Your task to perform on an android device: turn vacation reply on in the gmail app Image 0: 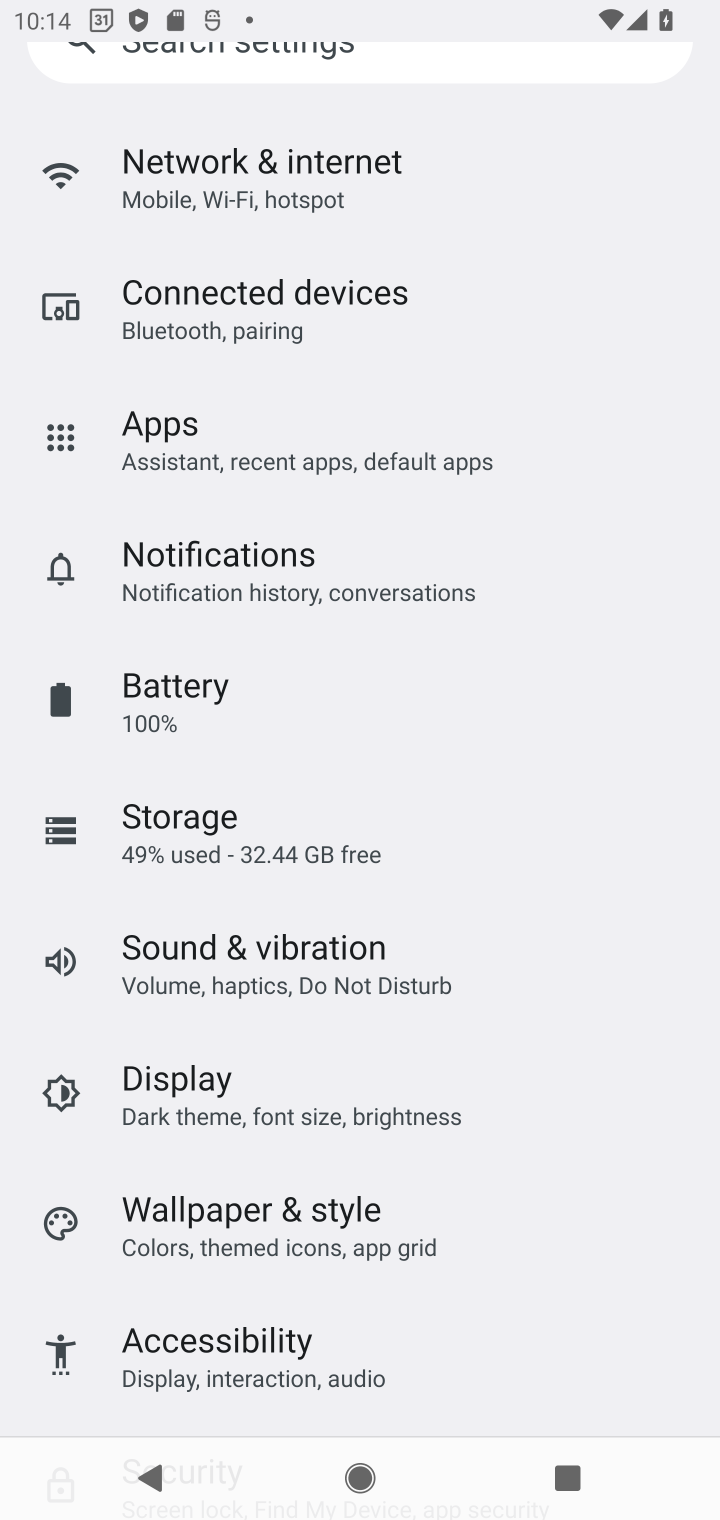
Step 0: press home button
Your task to perform on an android device: turn vacation reply on in the gmail app Image 1: 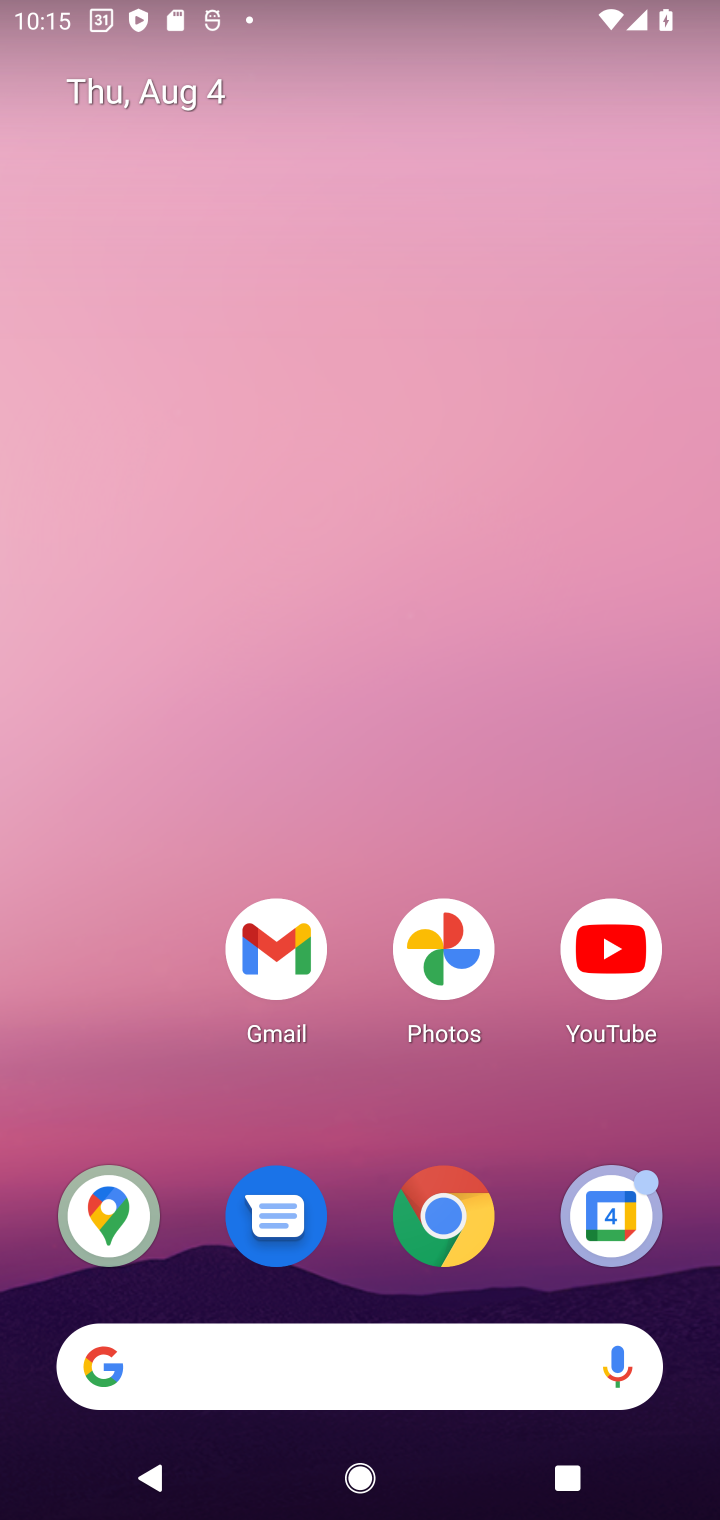
Step 1: drag from (250, 1382) to (299, 35)
Your task to perform on an android device: turn vacation reply on in the gmail app Image 2: 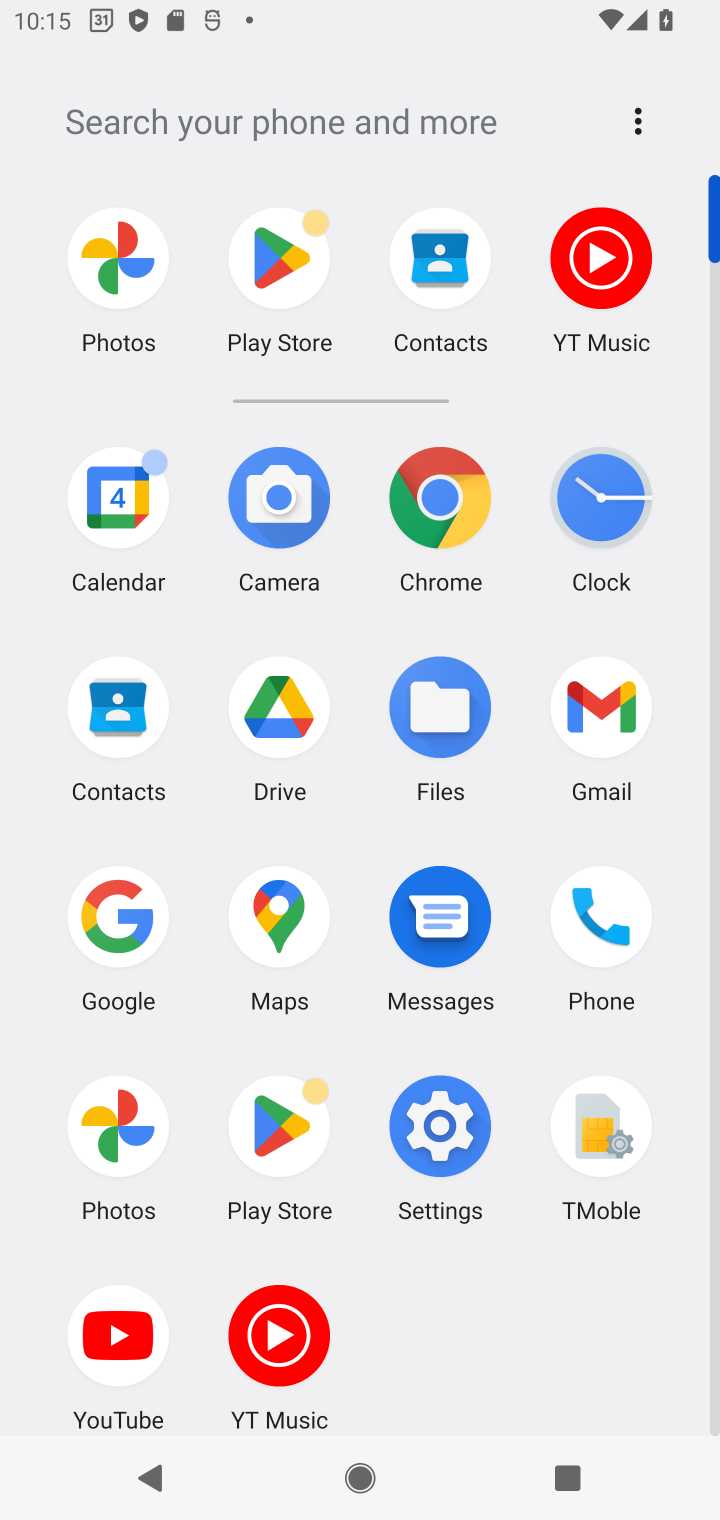
Step 2: click (591, 708)
Your task to perform on an android device: turn vacation reply on in the gmail app Image 3: 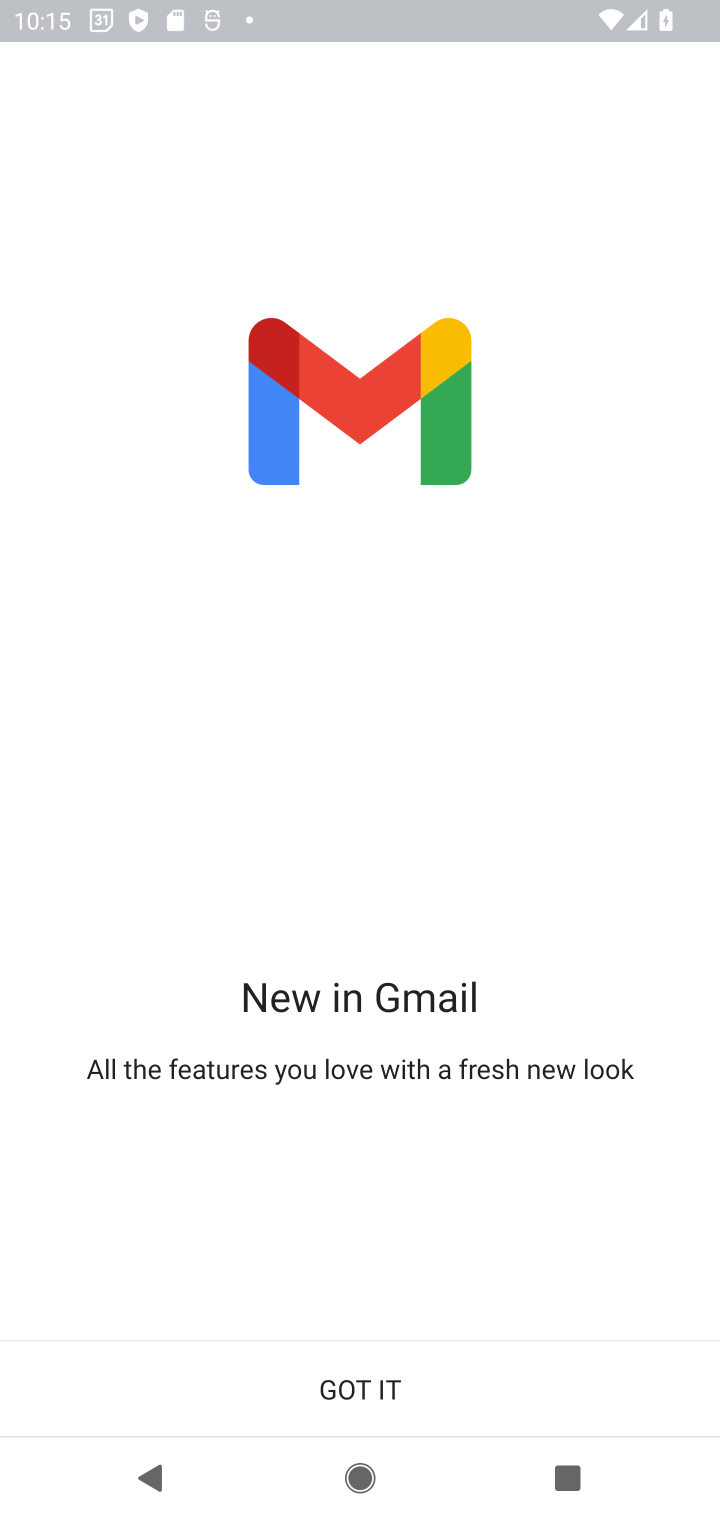
Step 3: click (361, 1386)
Your task to perform on an android device: turn vacation reply on in the gmail app Image 4: 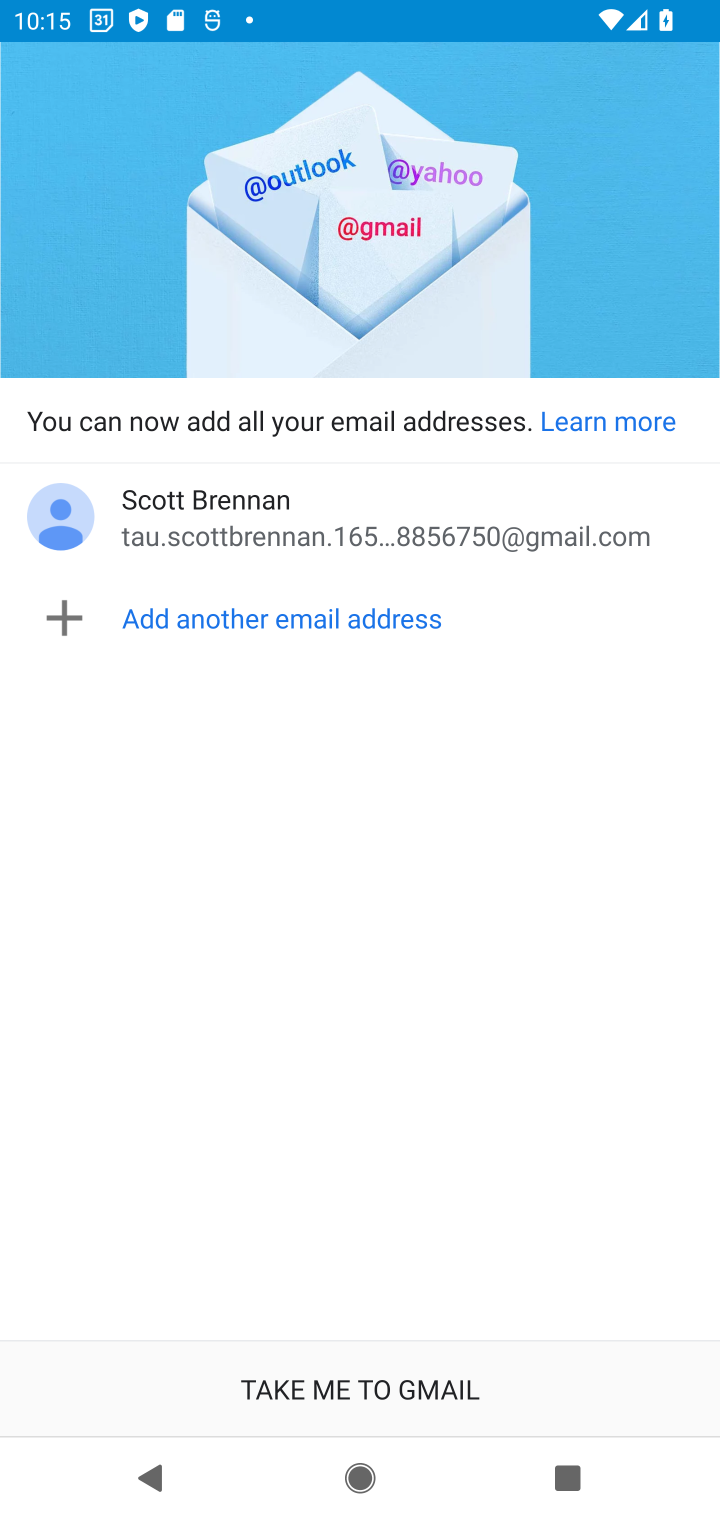
Step 4: click (371, 1389)
Your task to perform on an android device: turn vacation reply on in the gmail app Image 5: 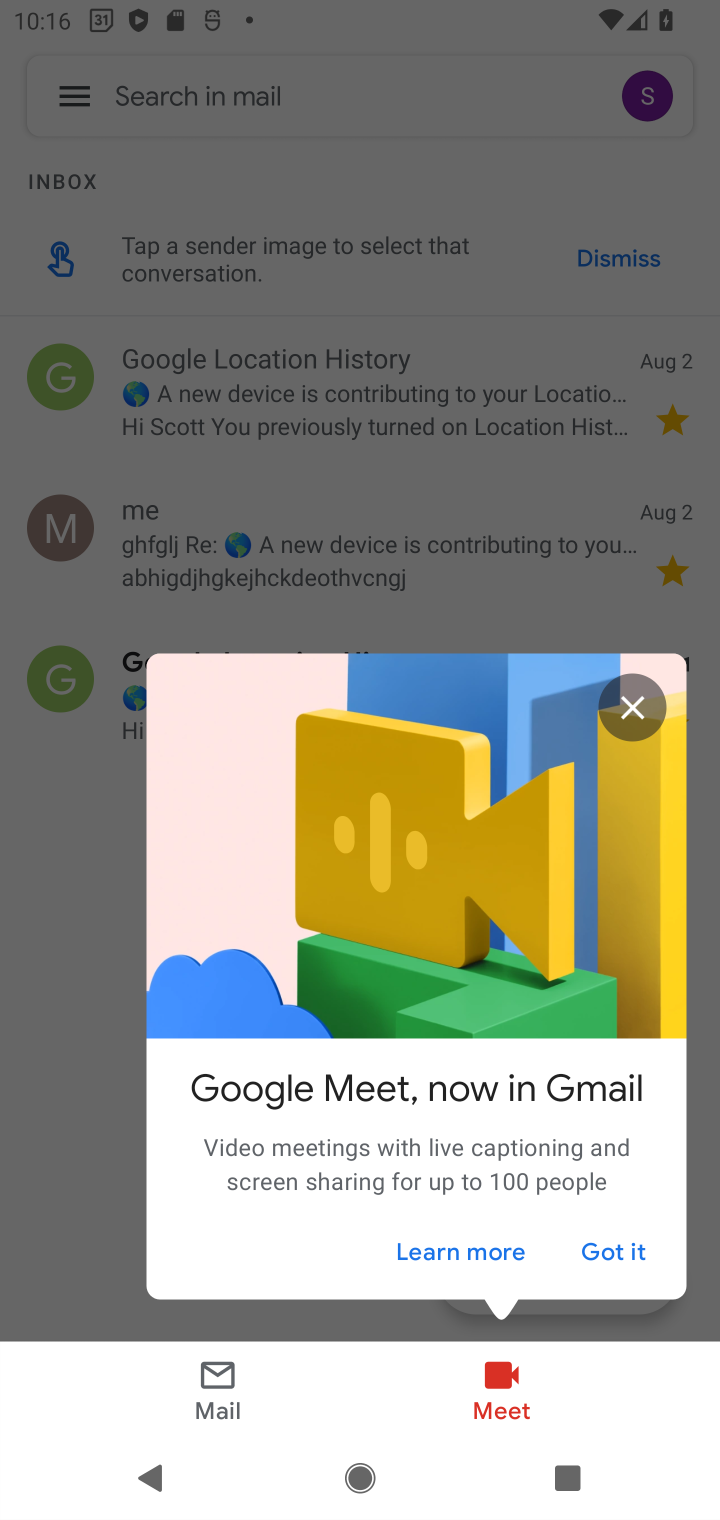
Step 5: click (617, 1257)
Your task to perform on an android device: turn vacation reply on in the gmail app Image 6: 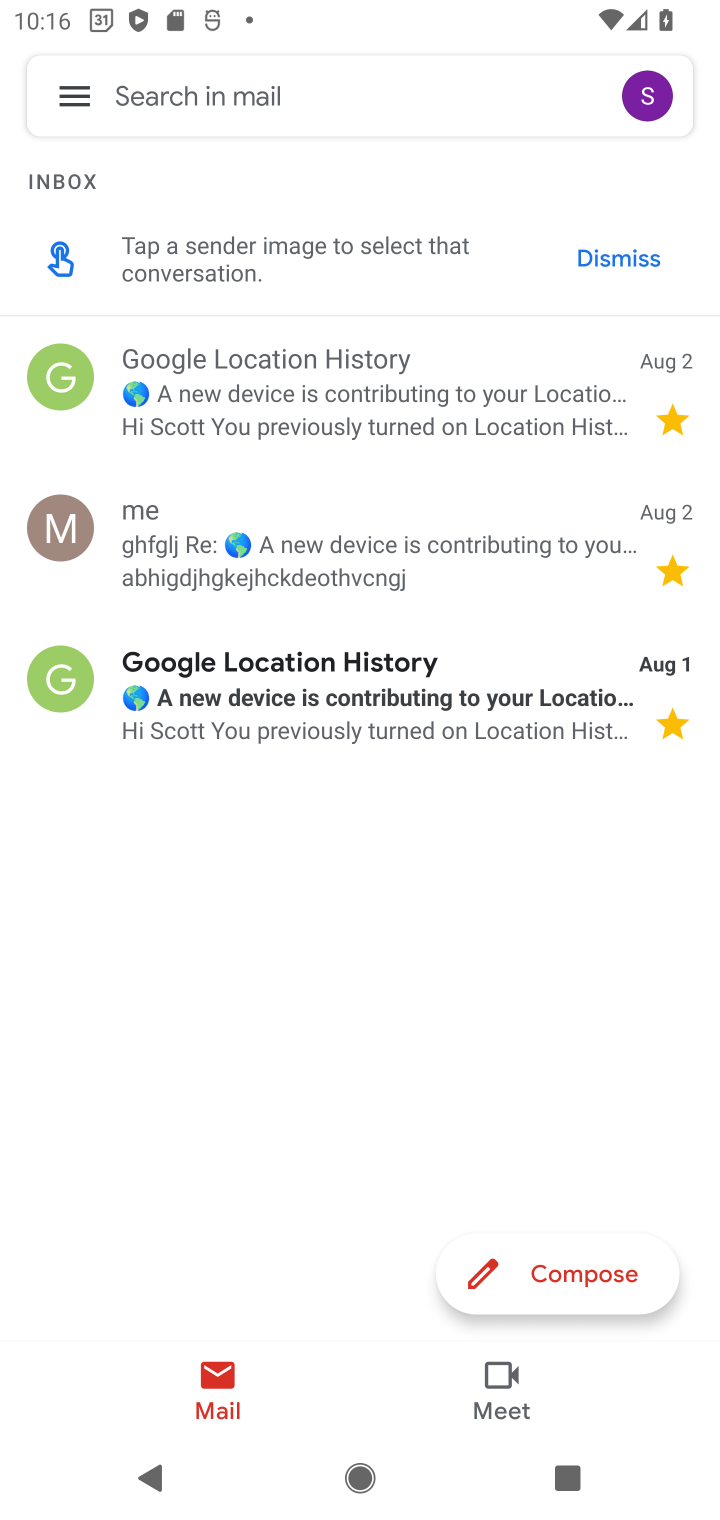
Step 6: click (80, 99)
Your task to perform on an android device: turn vacation reply on in the gmail app Image 7: 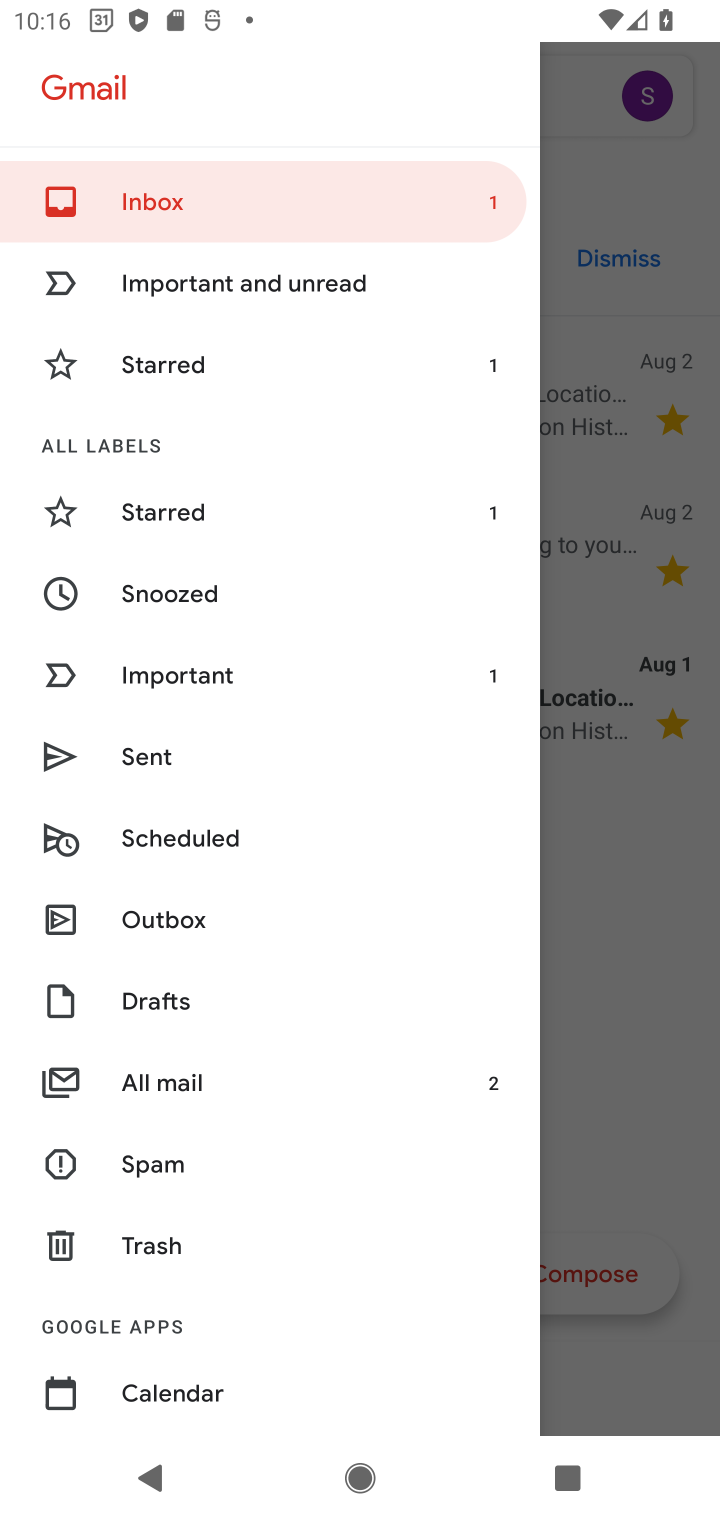
Step 7: drag from (153, 1213) to (220, 671)
Your task to perform on an android device: turn vacation reply on in the gmail app Image 8: 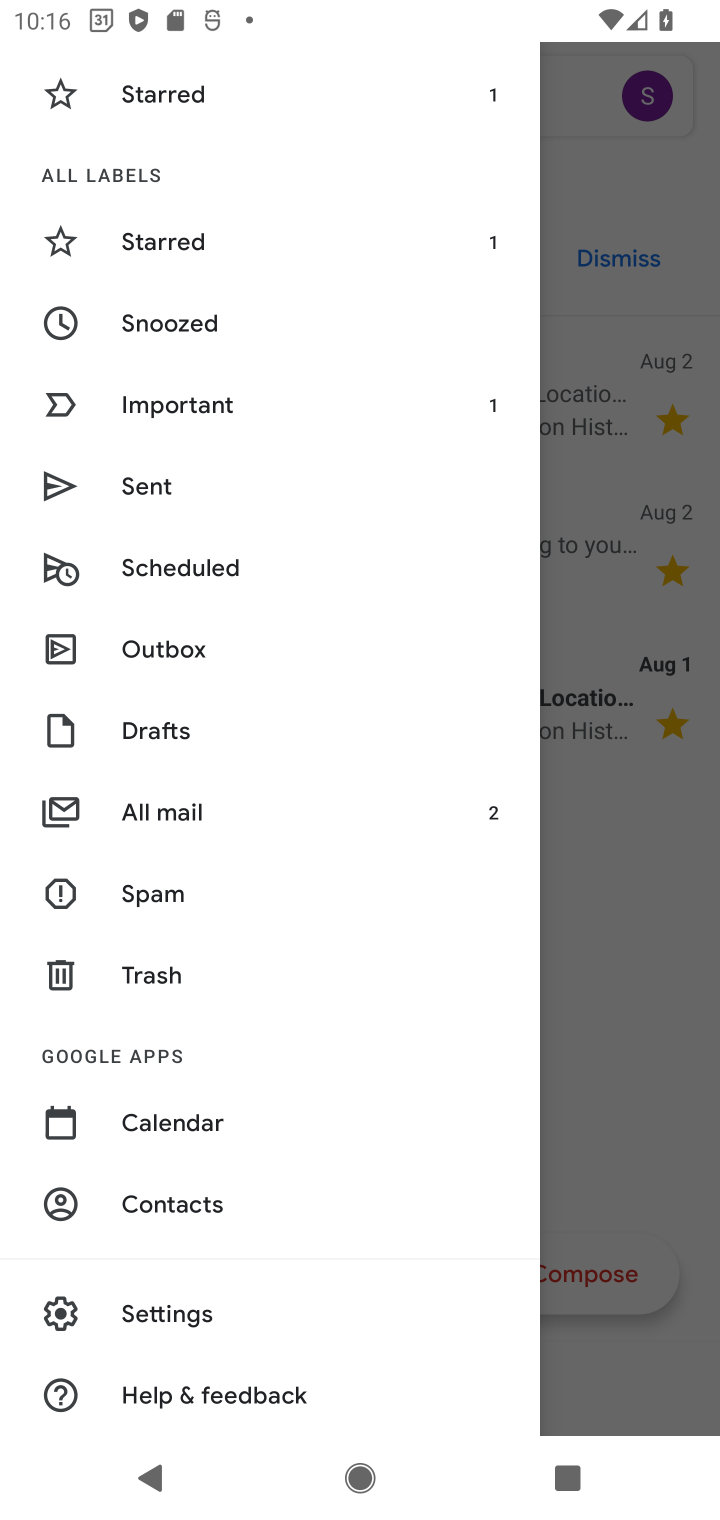
Step 8: click (188, 1309)
Your task to perform on an android device: turn vacation reply on in the gmail app Image 9: 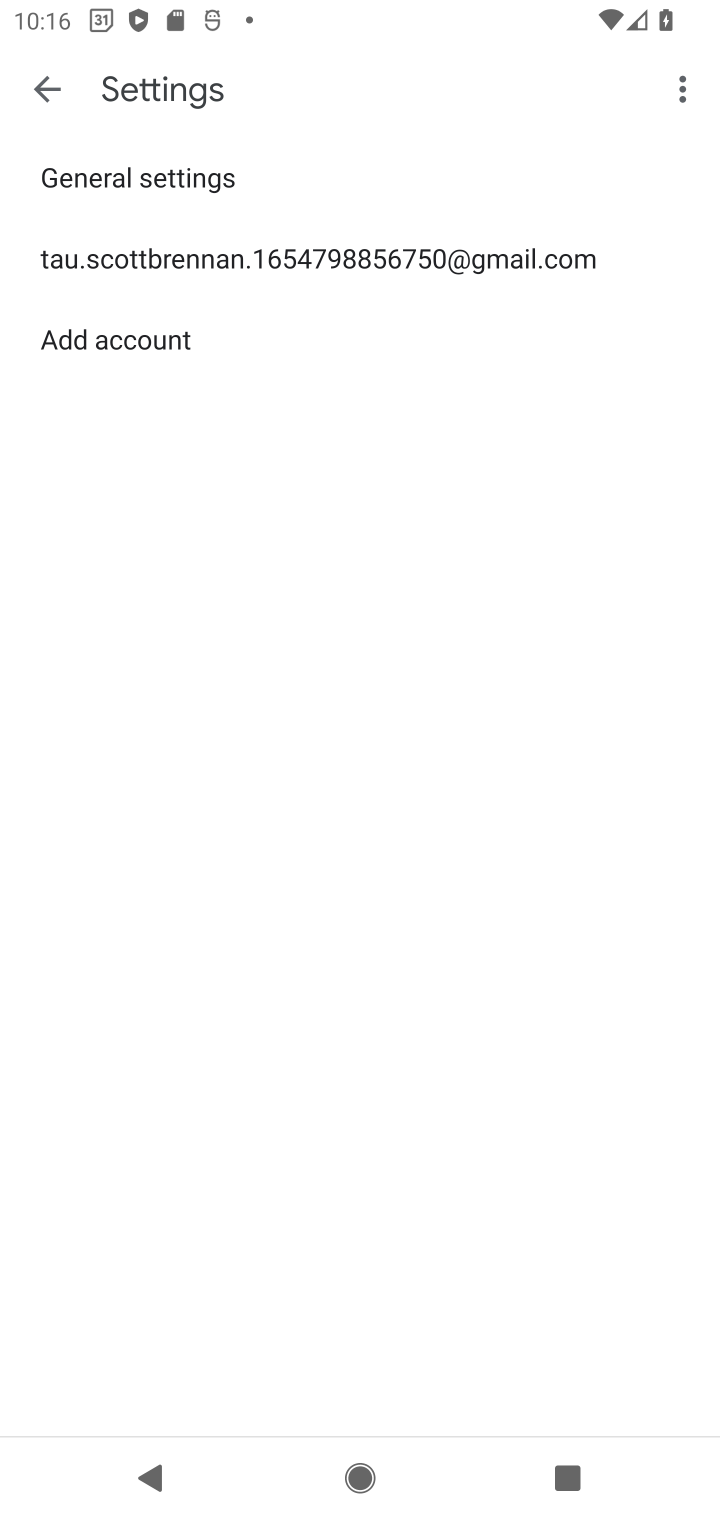
Step 9: click (395, 268)
Your task to perform on an android device: turn vacation reply on in the gmail app Image 10: 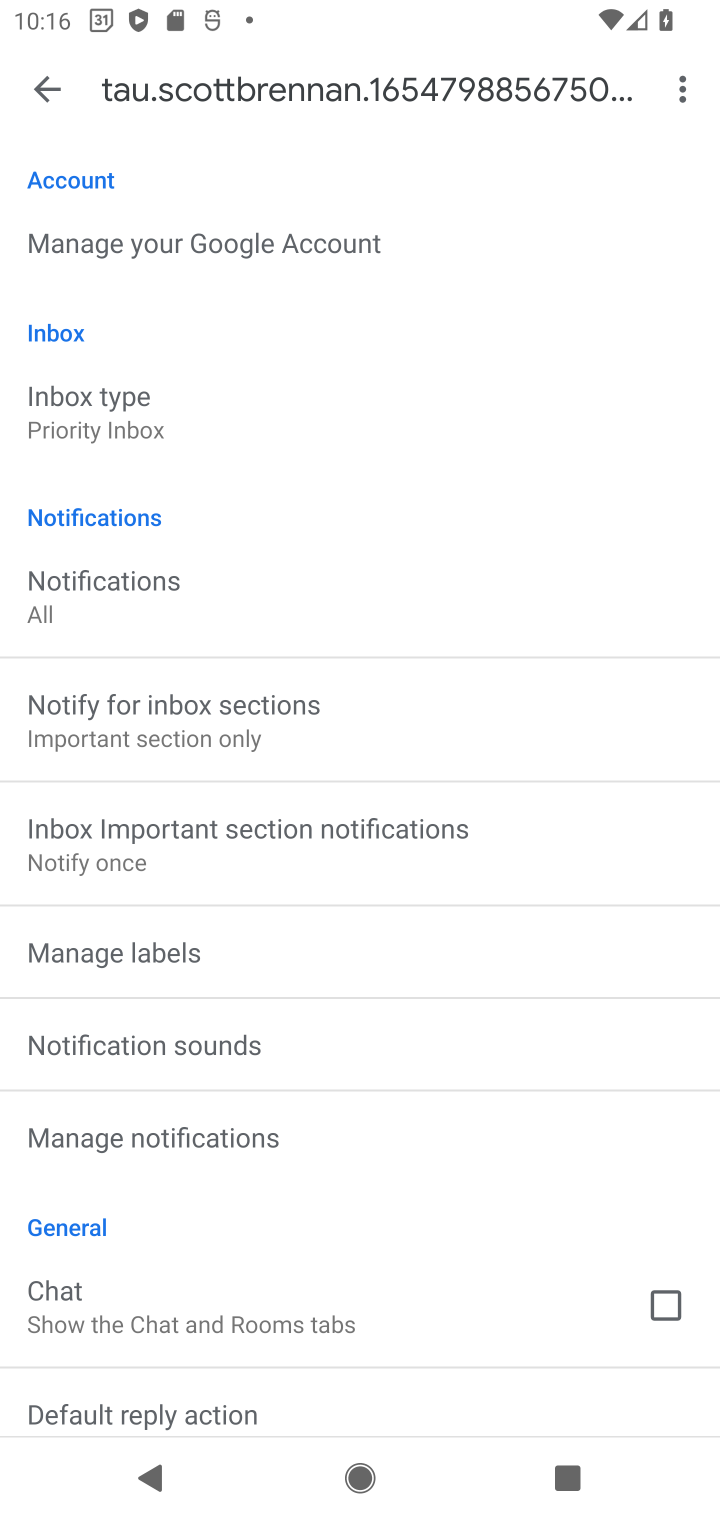
Step 10: drag from (172, 1277) to (253, 1047)
Your task to perform on an android device: turn vacation reply on in the gmail app Image 11: 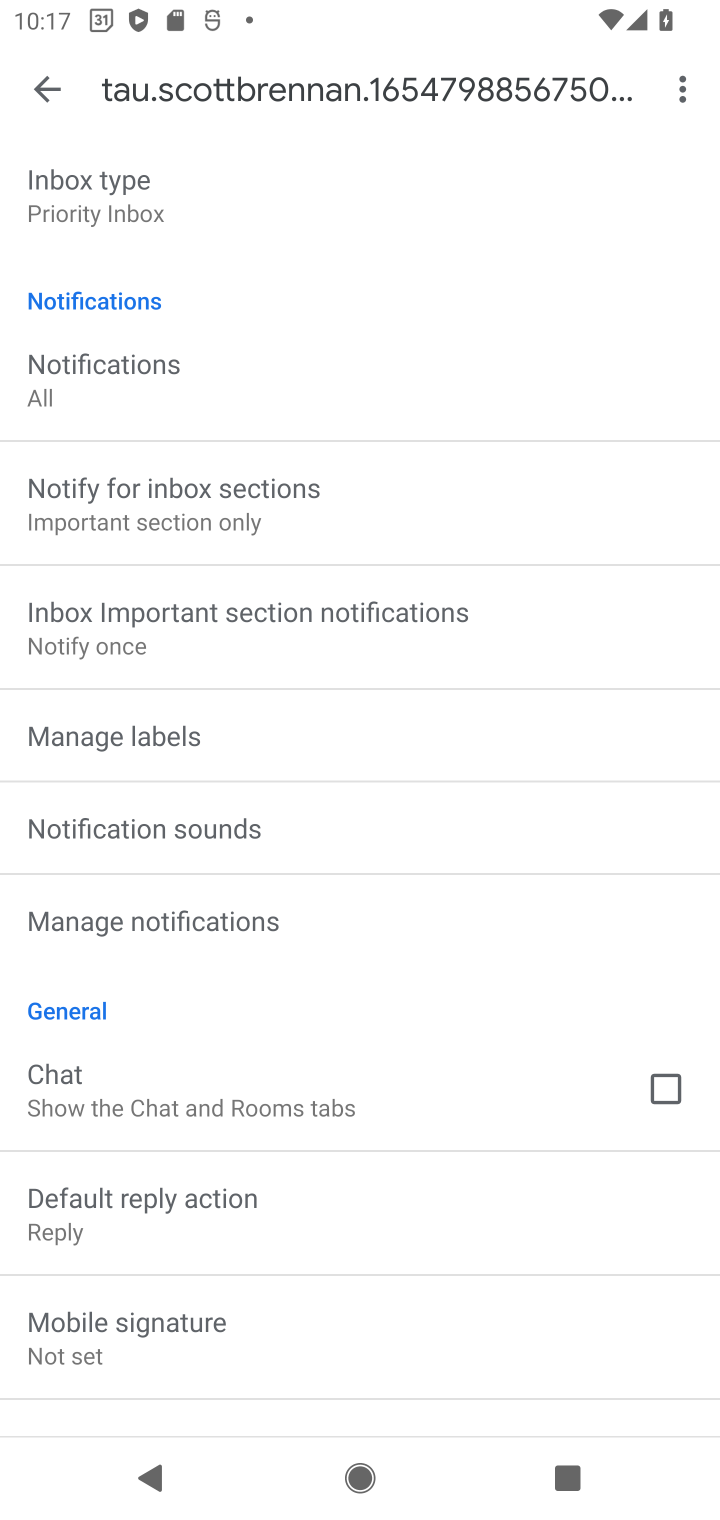
Step 11: drag from (232, 1356) to (335, 1152)
Your task to perform on an android device: turn vacation reply on in the gmail app Image 12: 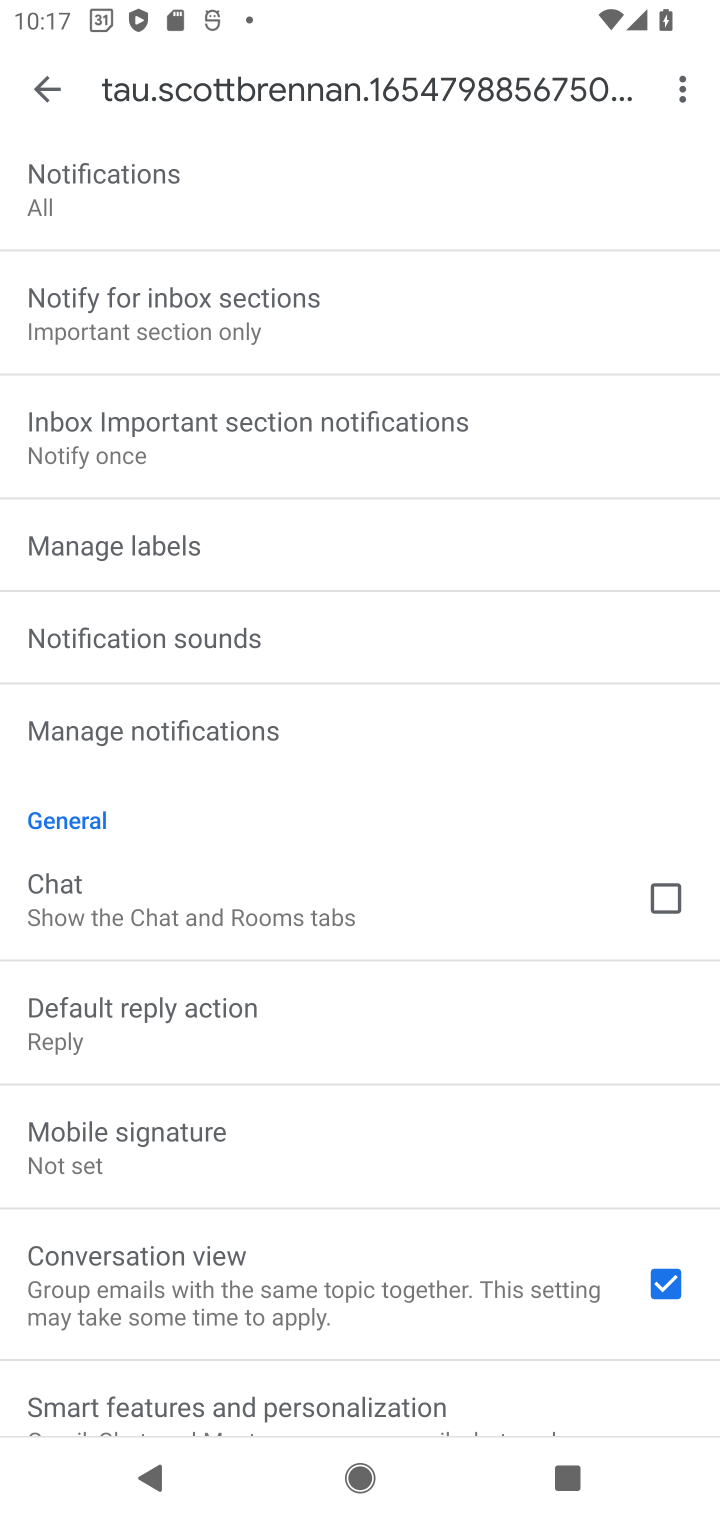
Step 12: drag from (194, 1371) to (367, 1067)
Your task to perform on an android device: turn vacation reply on in the gmail app Image 13: 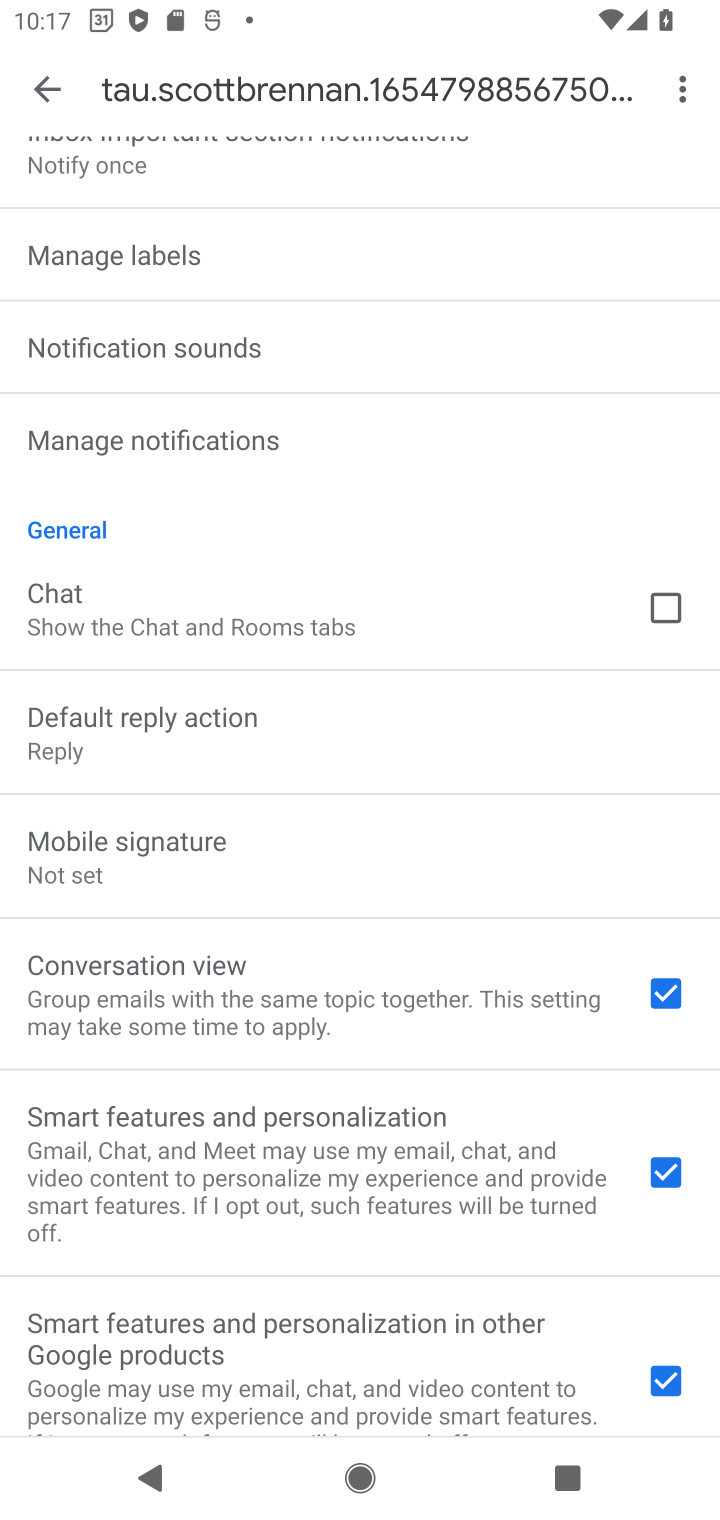
Step 13: drag from (196, 1282) to (431, 865)
Your task to perform on an android device: turn vacation reply on in the gmail app Image 14: 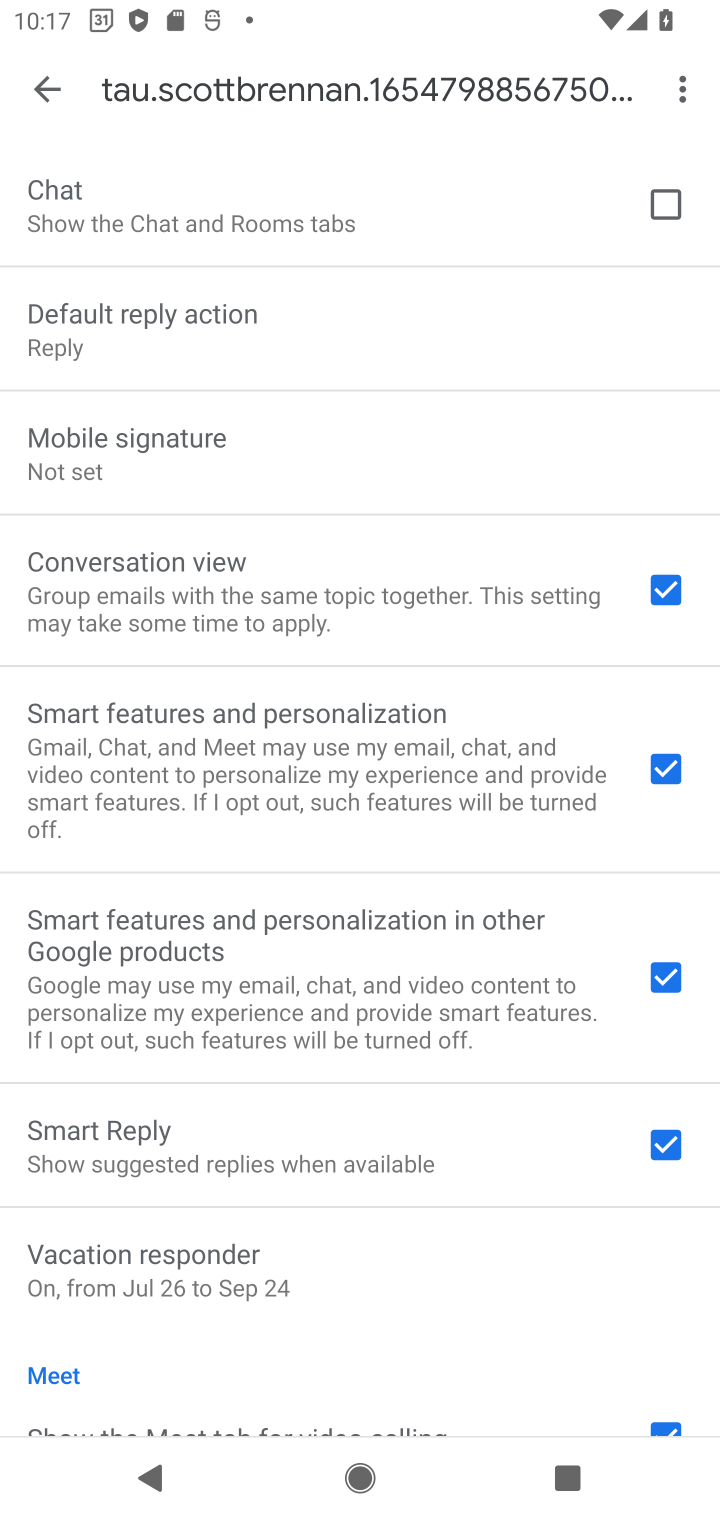
Step 14: click (197, 1254)
Your task to perform on an android device: turn vacation reply on in the gmail app Image 15: 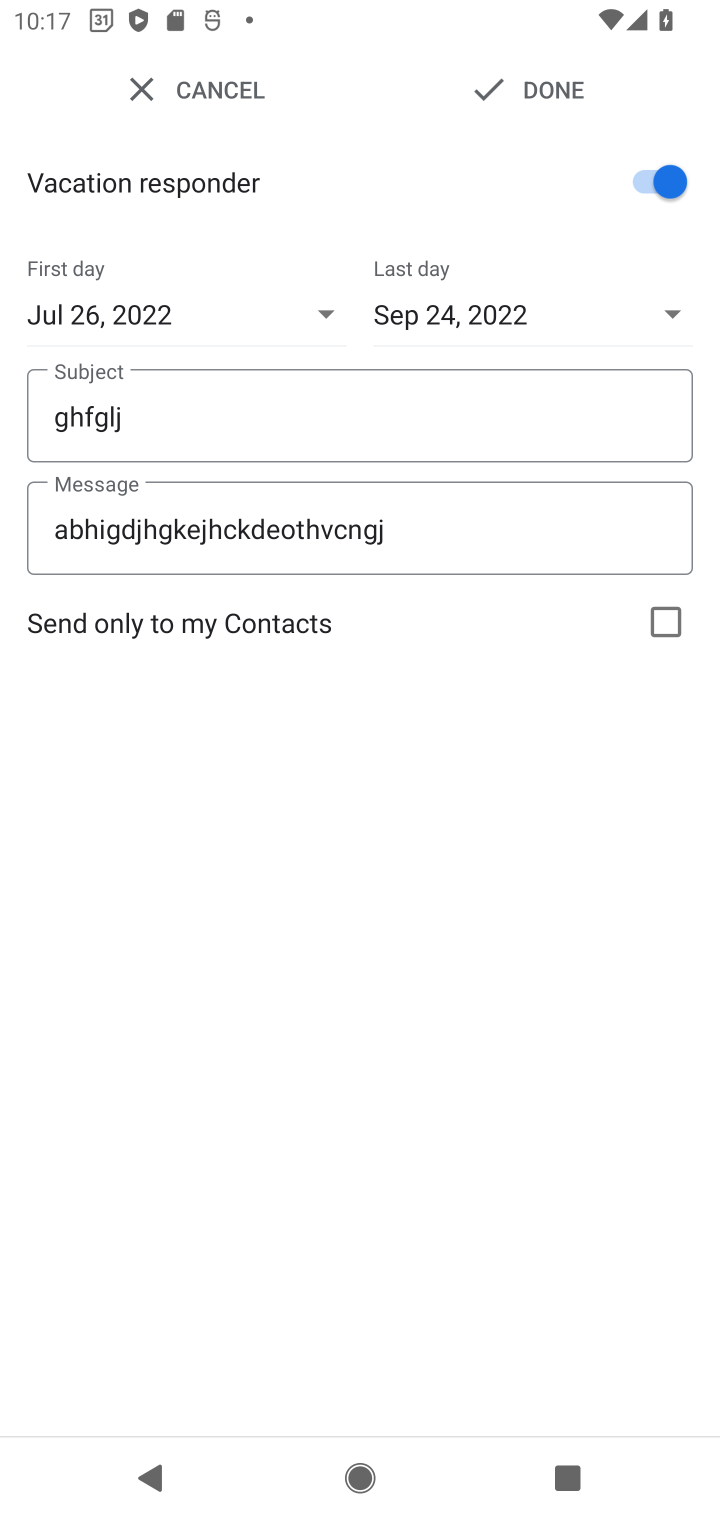
Step 15: task complete